Your task to perform on an android device: turn on the 12-hour format for clock Image 0: 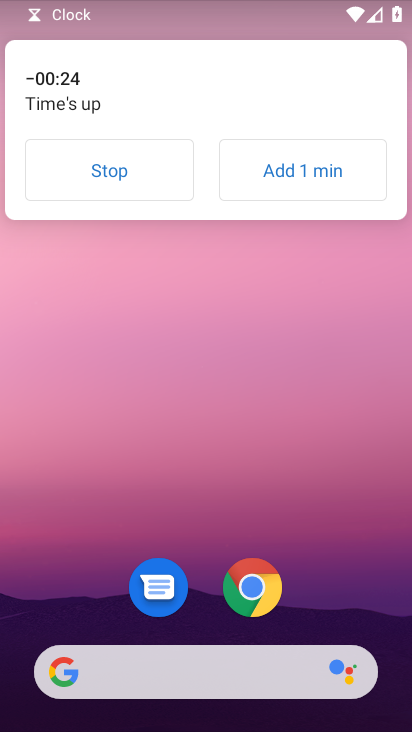
Step 0: click (66, 76)
Your task to perform on an android device: turn on the 12-hour format for clock Image 1: 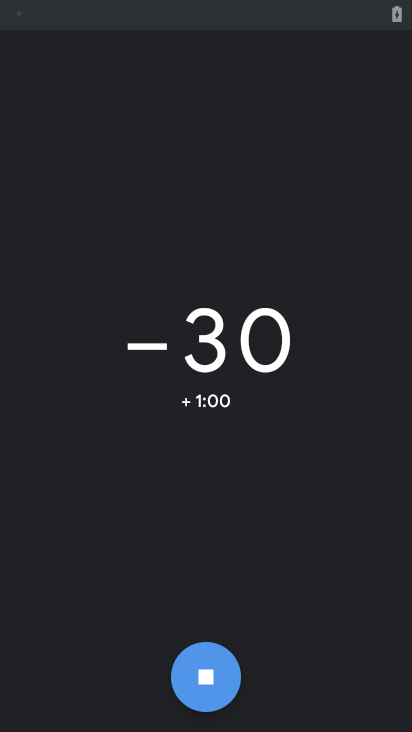
Step 1: click (226, 680)
Your task to perform on an android device: turn on the 12-hour format for clock Image 2: 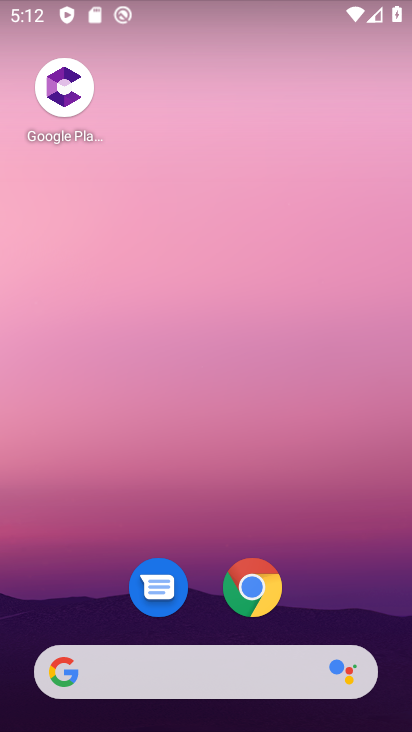
Step 2: task complete